Your task to perform on an android device: Clear the cart on amazon. Add corsair k70 to the cart on amazon Image 0: 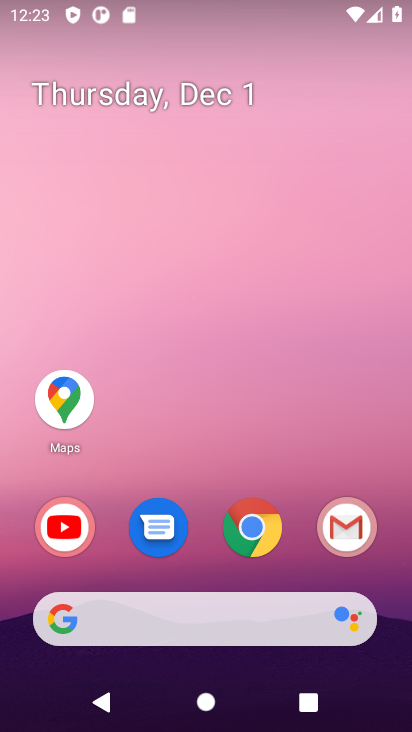
Step 0: click (256, 526)
Your task to perform on an android device: Clear the cart on amazon. Add corsair k70 to the cart on amazon Image 1: 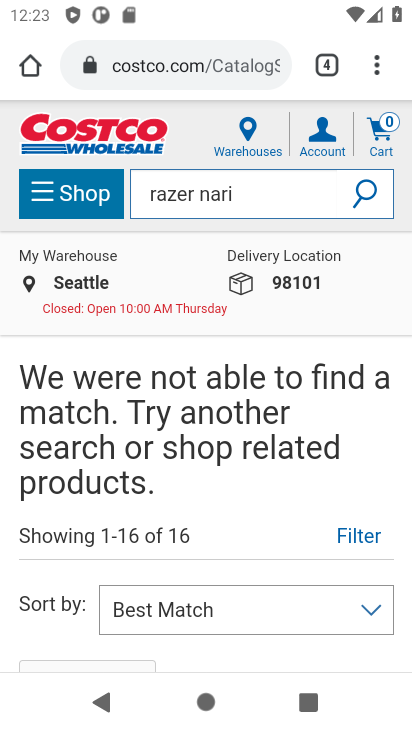
Step 1: click (218, 60)
Your task to perform on an android device: Clear the cart on amazon. Add corsair k70 to the cart on amazon Image 2: 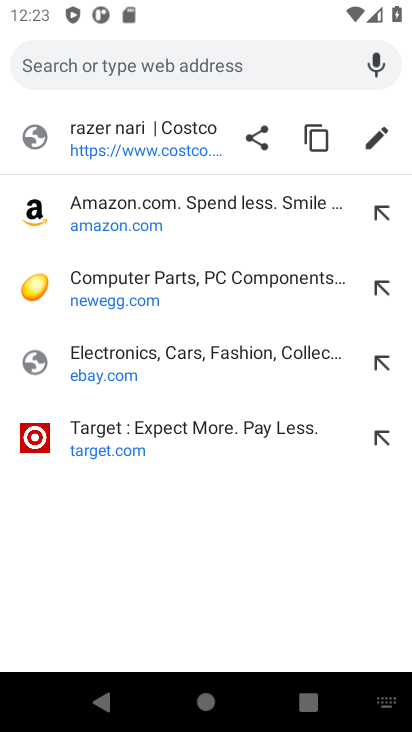
Step 2: click (122, 209)
Your task to perform on an android device: Clear the cart on amazon. Add corsair k70 to the cart on amazon Image 3: 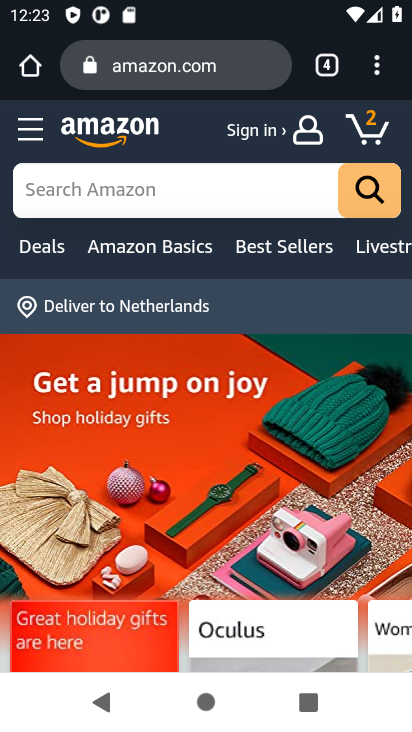
Step 3: click (366, 133)
Your task to perform on an android device: Clear the cart on amazon. Add corsair k70 to the cart on amazon Image 4: 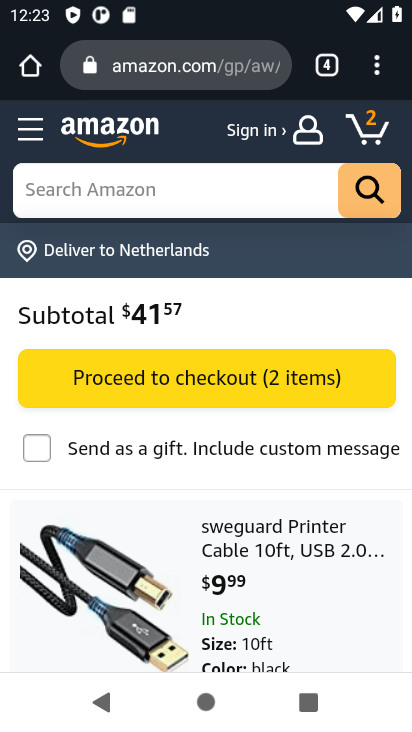
Step 4: drag from (320, 667) to (318, 304)
Your task to perform on an android device: Clear the cart on amazon. Add corsair k70 to the cart on amazon Image 5: 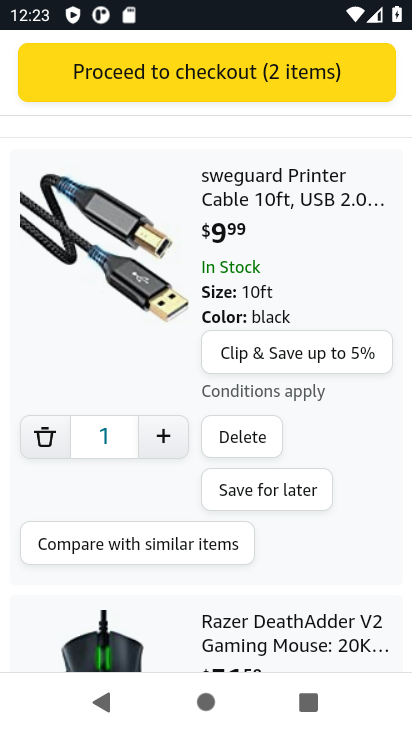
Step 5: click (237, 431)
Your task to perform on an android device: Clear the cart on amazon. Add corsair k70 to the cart on amazon Image 6: 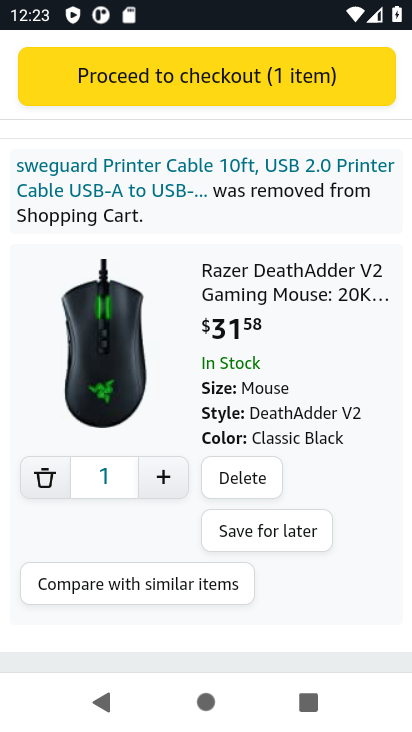
Step 6: click (240, 471)
Your task to perform on an android device: Clear the cart on amazon. Add corsair k70 to the cart on amazon Image 7: 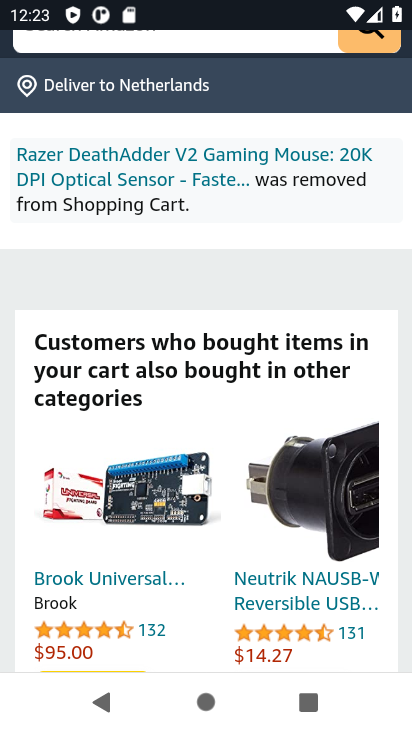
Step 7: drag from (134, 151) to (134, 312)
Your task to perform on an android device: Clear the cart on amazon. Add corsair k70 to the cart on amazon Image 8: 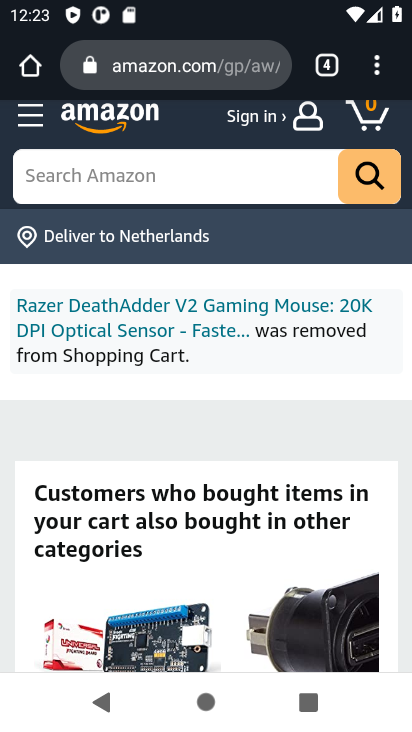
Step 8: click (84, 174)
Your task to perform on an android device: Clear the cart on amazon. Add corsair k70 to the cart on amazon Image 9: 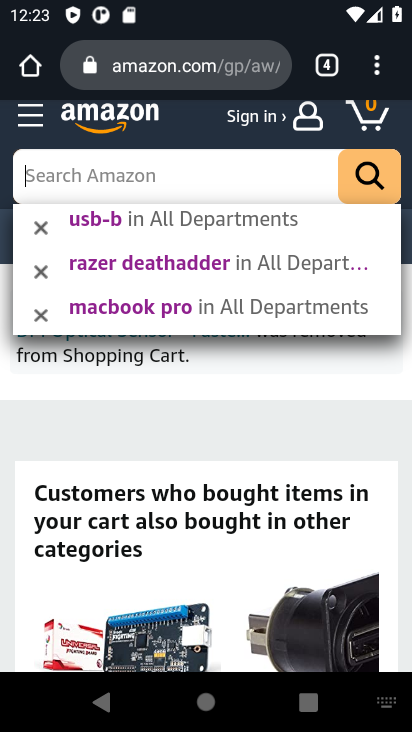
Step 9: type "corsair k70"
Your task to perform on an android device: Clear the cart on amazon. Add corsair k70 to the cart on amazon Image 10: 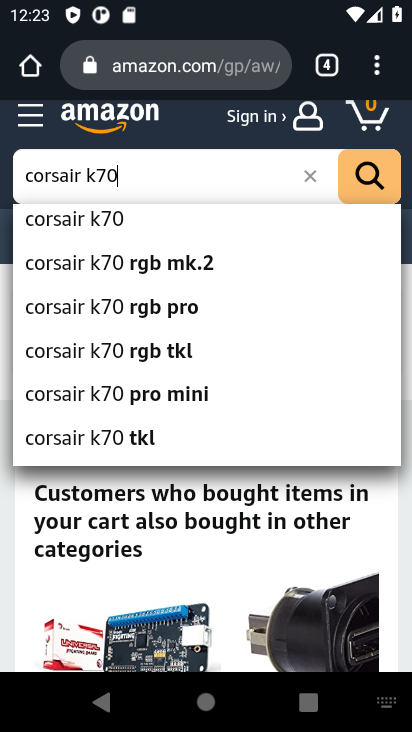
Step 10: click (77, 216)
Your task to perform on an android device: Clear the cart on amazon. Add corsair k70 to the cart on amazon Image 11: 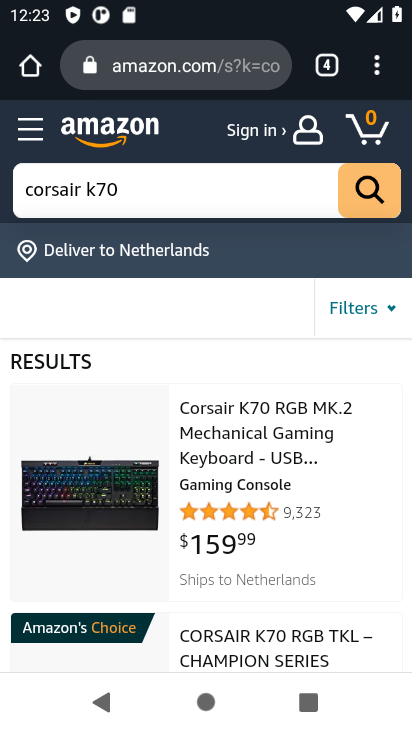
Step 11: drag from (220, 461) to (238, 298)
Your task to perform on an android device: Clear the cart on amazon. Add corsair k70 to the cart on amazon Image 12: 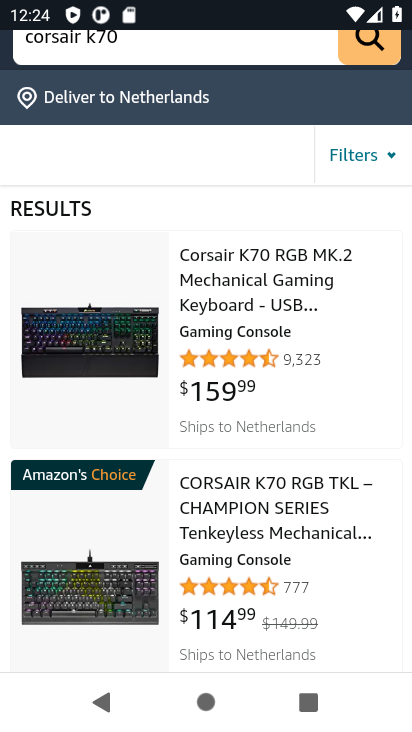
Step 12: click (236, 299)
Your task to perform on an android device: Clear the cart on amazon. Add corsair k70 to the cart on amazon Image 13: 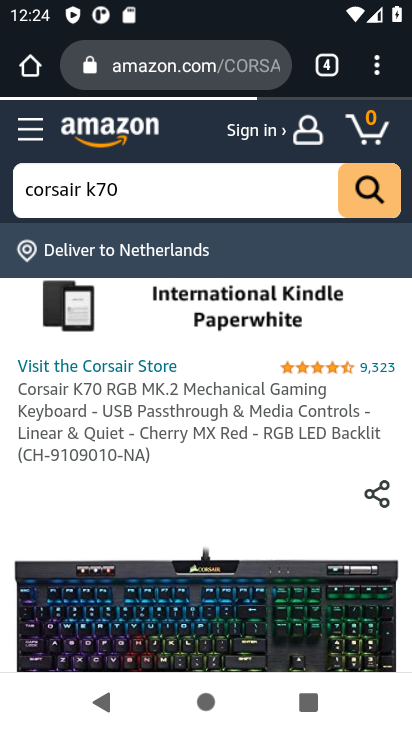
Step 13: drag from (192, 500) to (195, 137)
Your task to perform on an android device: Clear the cart on amazon. Add corsair k70 to the cart on amazon Image 14: 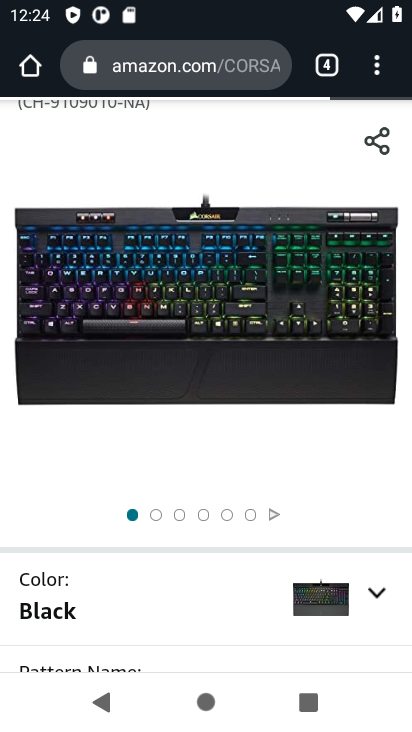
Step 14: drag from (207, 385) to (200, 143)
Your task to perform on an android device: Clear the cart on amazon. Add corsair k70 to the cart on amazon Image 15: 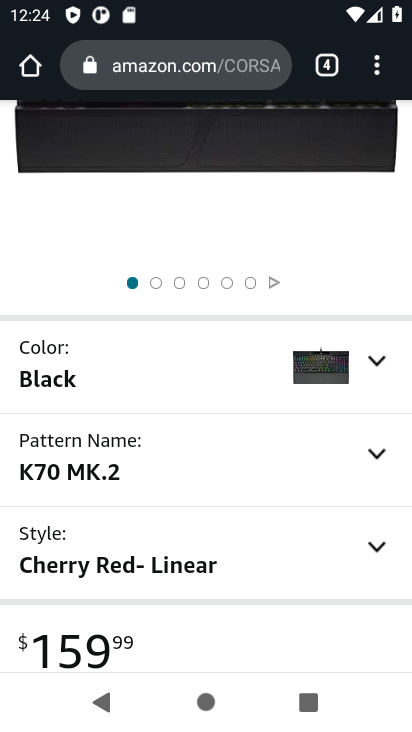
Step 15: drag from (176, 469) to (158, 190)
Your task to perform on an android device: Clear the cart on amazon. Add corsair k70 to the cart on amazon Image 16: 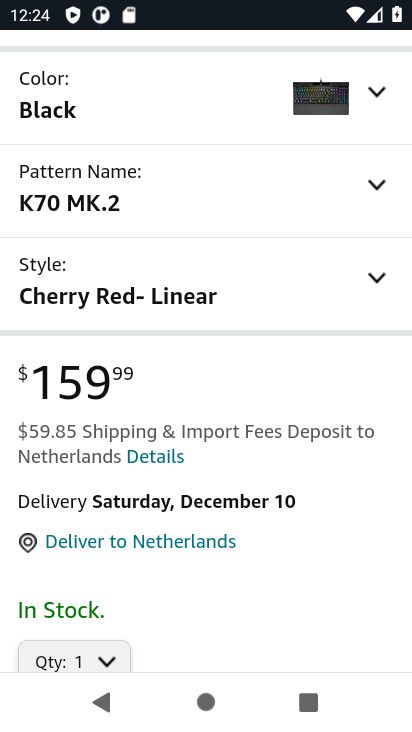
Step 16: drag from (155, 468) to (142, 183)
Your task to perform on an android device: Clear the cart on amazon. Add corsair k70 to the cart on amazon Image 17: 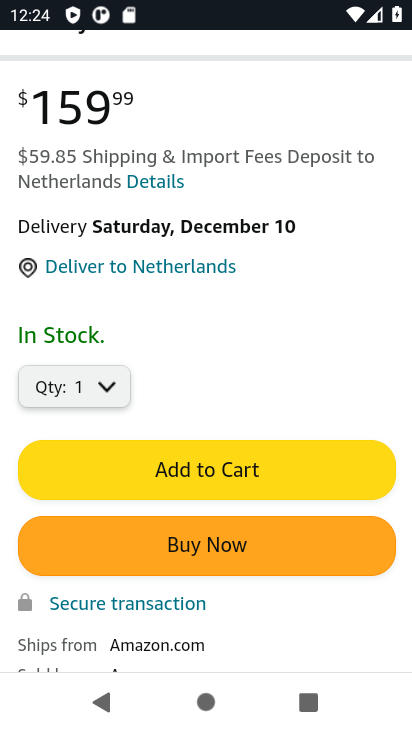
Step 17: click (141, 451)
Your task to perform on an android device: Clear the cart on amazon. Add corsair k70 to the cart on amazon Image 18: 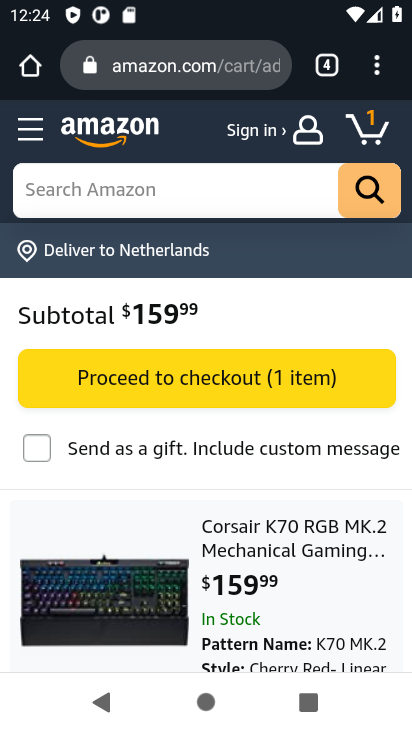
Step 18: task complete